Your task to perform on an android device: install app "Yahoo Mail" Image 0: 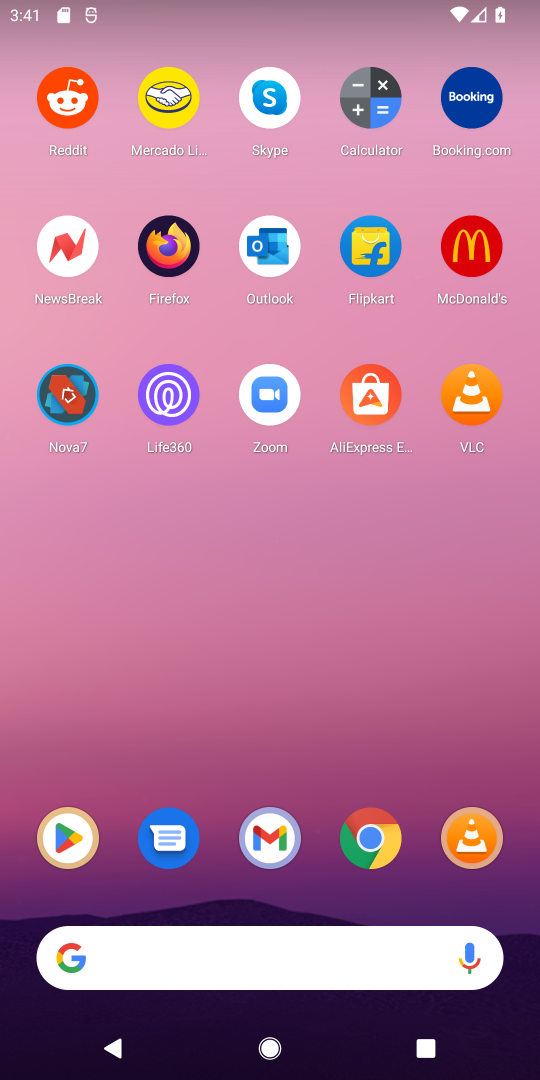
Step 0: click (69, 822)
Your task to perform on an android device: install app "Yahoo Mail" Image 1: 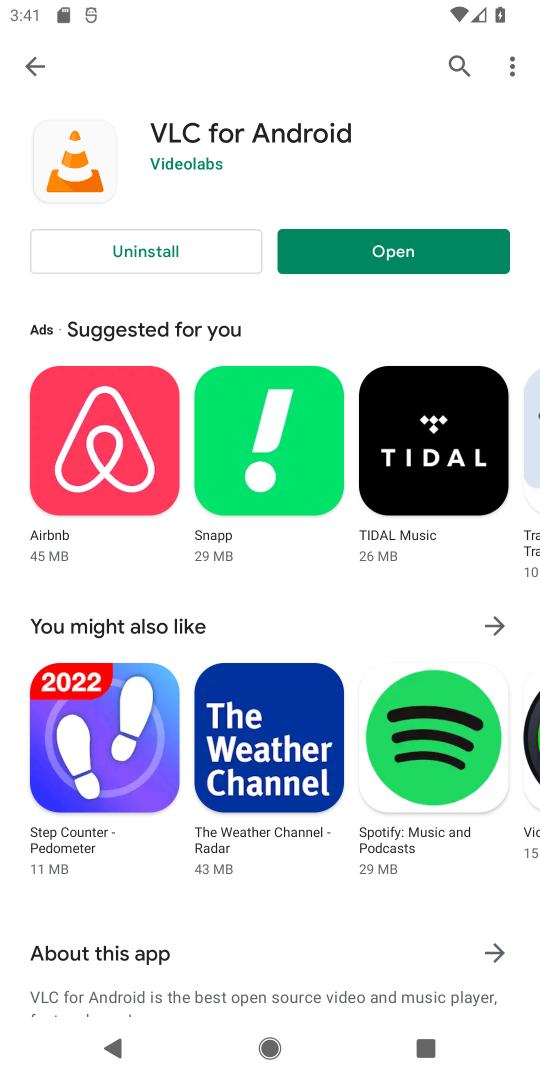
Step 1: click (464, 68)
Your task to perform on an android device: install app "Yahoo Mail" Image 2: 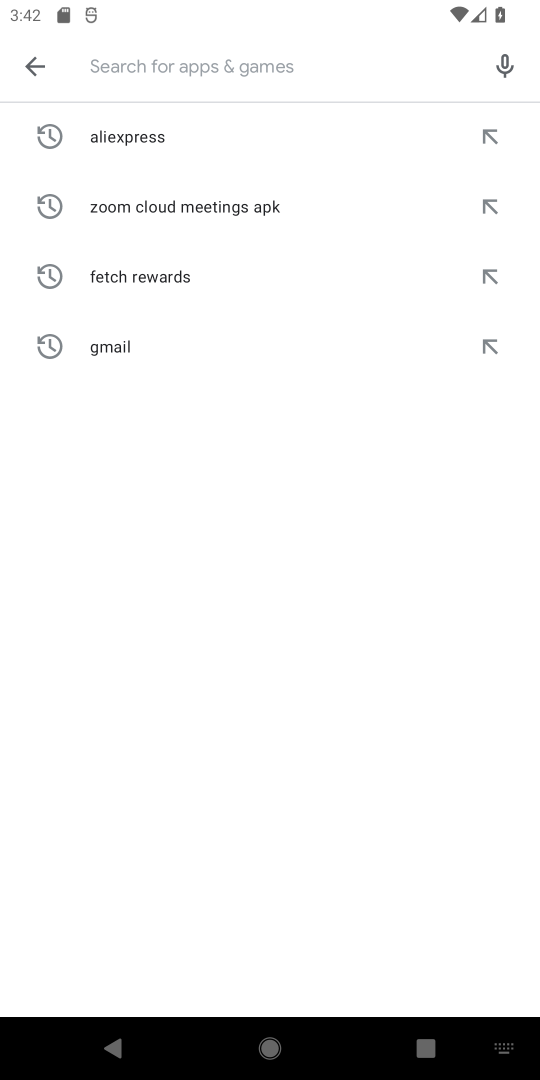
Step 2: click (406, 68)
Your task to perform on an android device: install app "Yahoo Mail" Image 3: 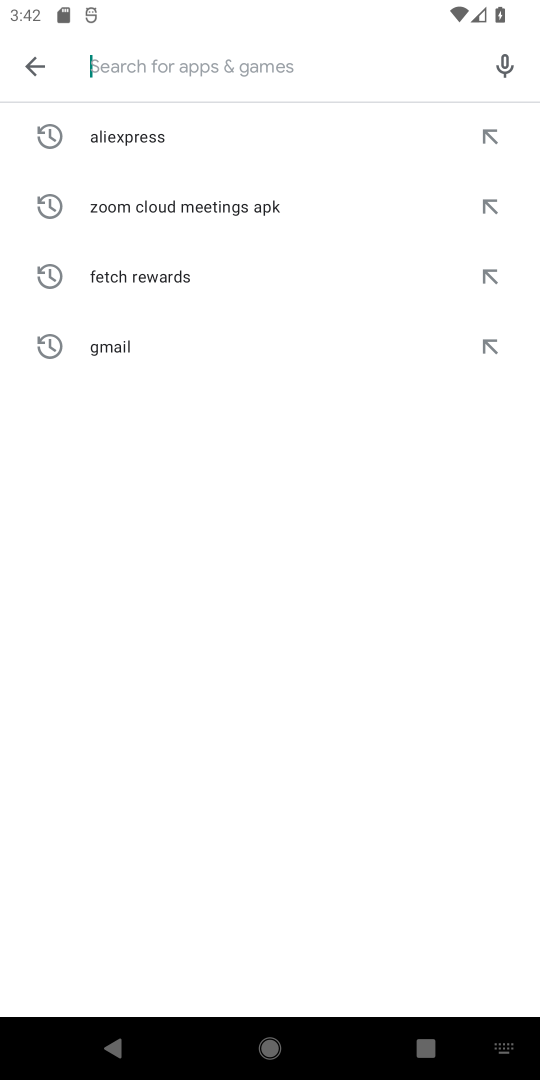
Step 3: type "Yahoo Mail"
Your task to perform on an android device: install app "Yahoo Mail" Image 4: 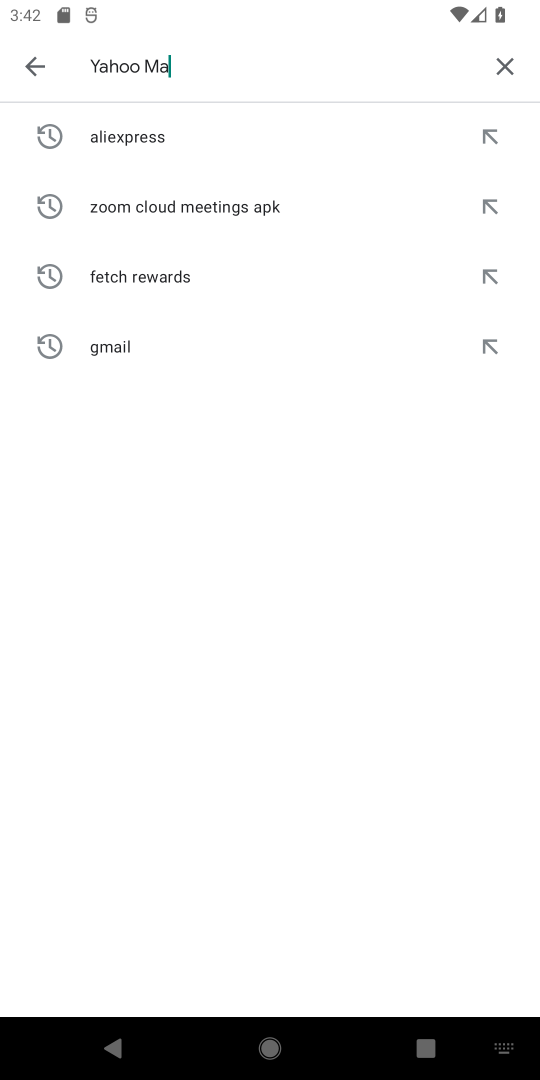
Step 4: type ""
Your task to perform on an android device: install app "Yahoo Mail" Image 5: 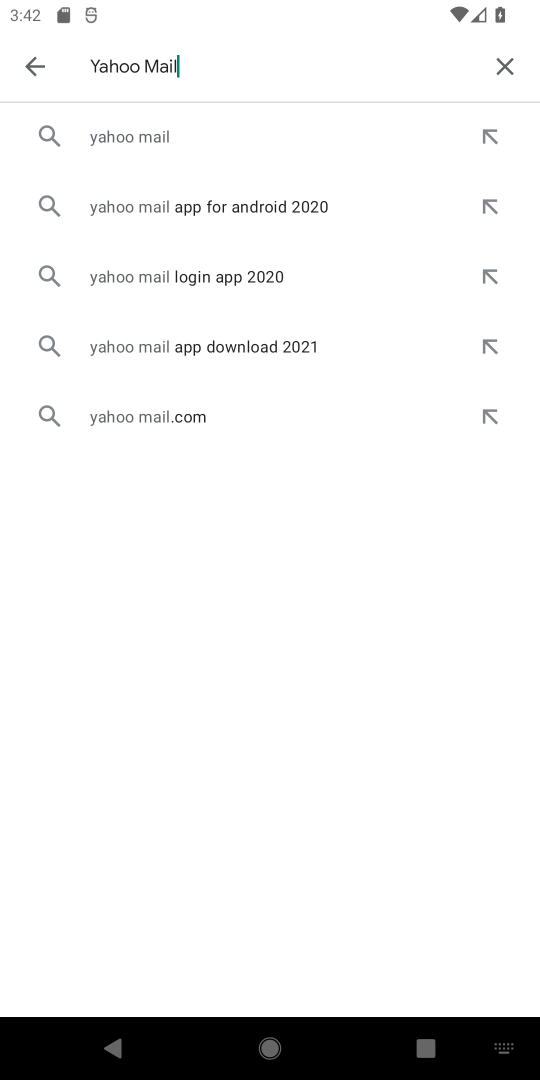
Step 5: click (208, 136)
Your task to perform on an android device: install app "Yahoo Mail" Image 6: 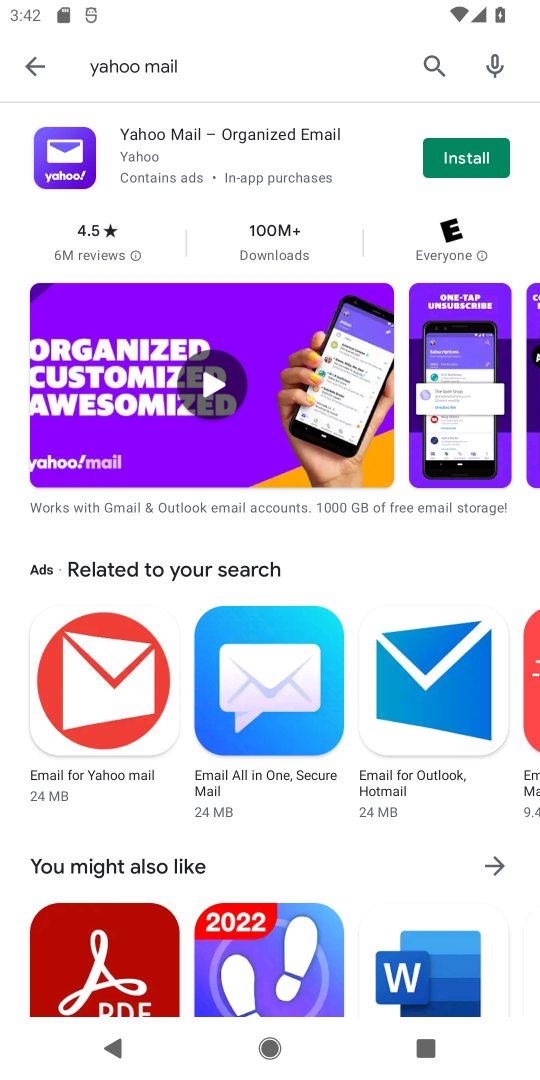
Step 6: click (466, 162)
Your task to perform on an android device: install app "Yahoo Mail" Image 7: 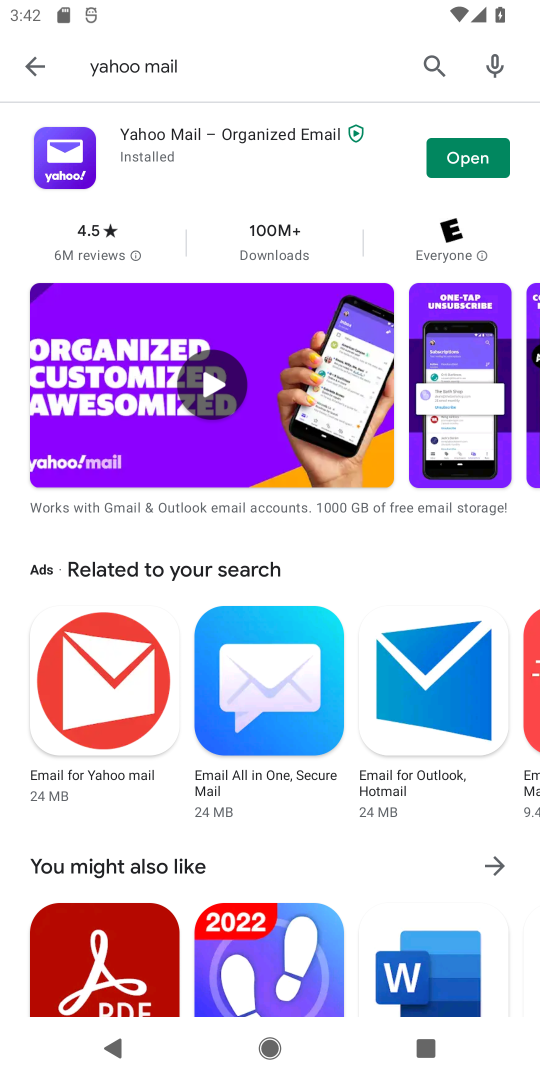
Step 7: task complete